Your task to perform on an android device: check google app version Image 0: 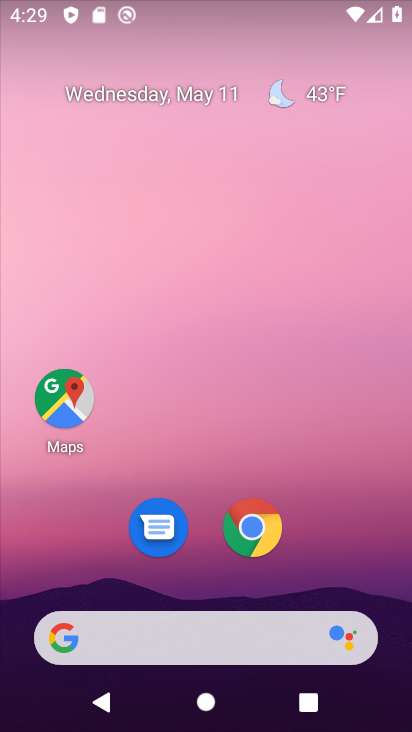
Step 0: drag from (78, 604) to (199, 201)
Your task to perform on an android device: check google app version Image 1: 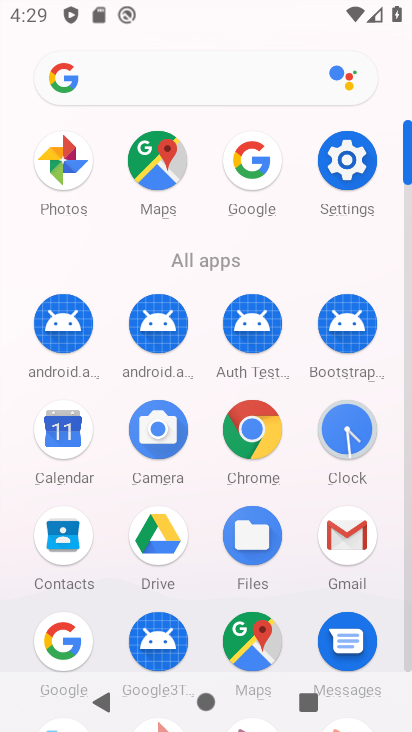
Step 1: drag from (187, 667) to (268, 399)
Your task to perform on an android device: check google app version Image 2: 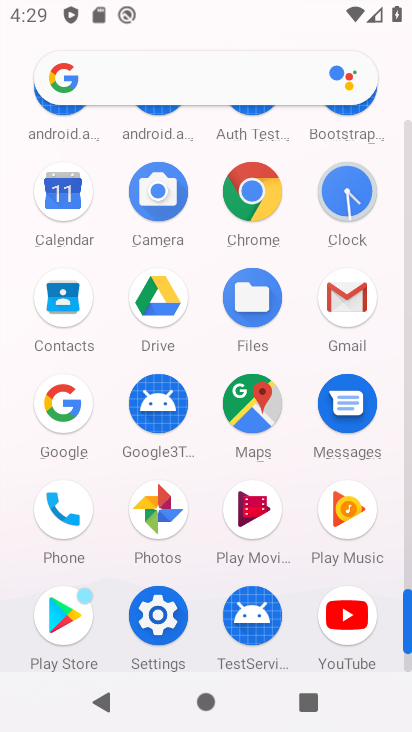
Step 2: click (164, 624)
Your task to perform on an android device: check google app version Image 3: 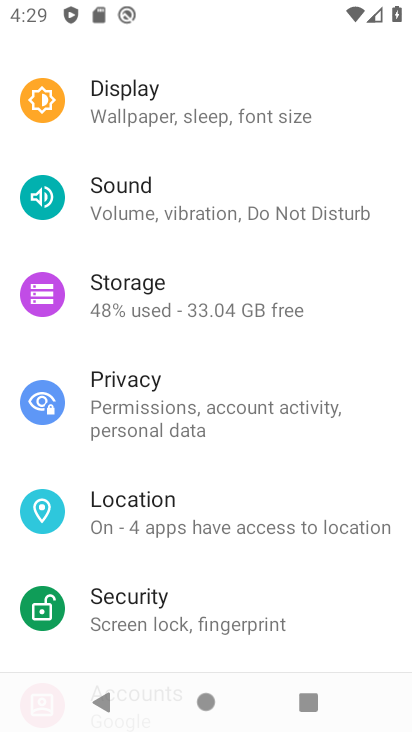
Step 3: drag from (226, 161) to (234, 493)
Your task to perform on an android device: check google app version Image 4: 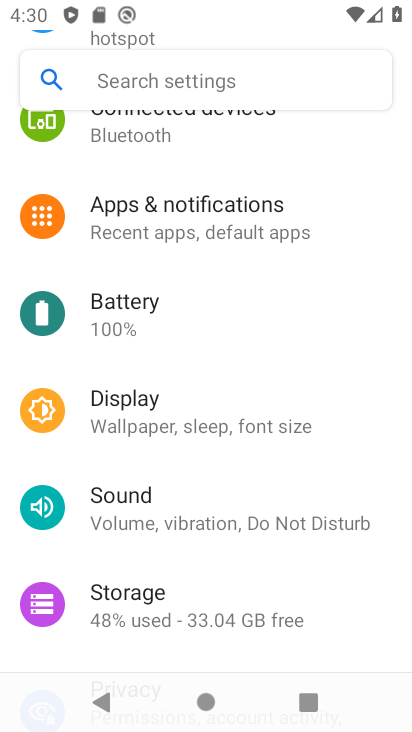
Step 4: click (233, 231)
Your task to perform on an android device: check google app version Image 5: 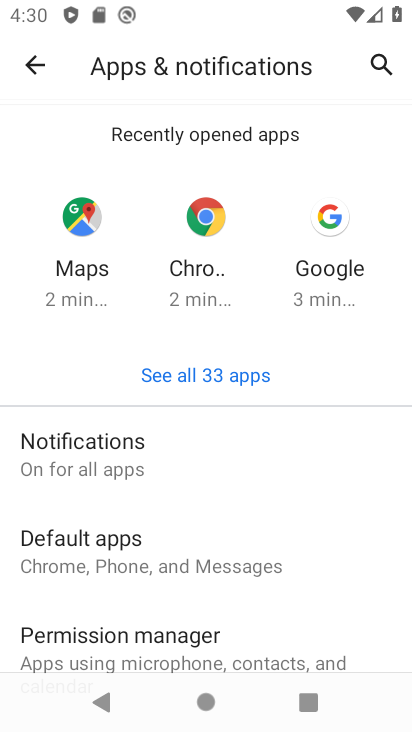
Step 5: click (225, 380)
Your task to perform on an android device: check google app version Image 6: 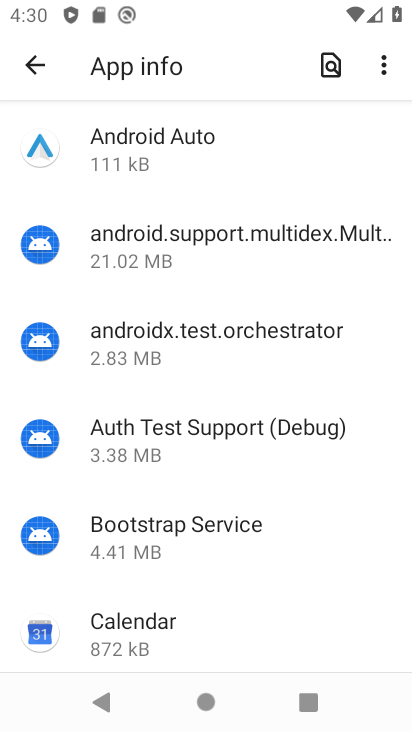
Step 6: drag from (158, 646) to (311, 221)
Your task to perform on an android device: check google app version Image 7: 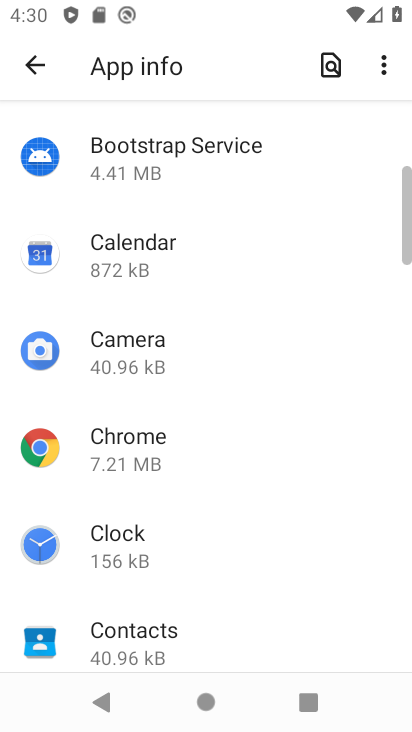
Step 7: drag from (187, 616) to (336, 255)
Your task to perform on an android device: check google app version Image 8: 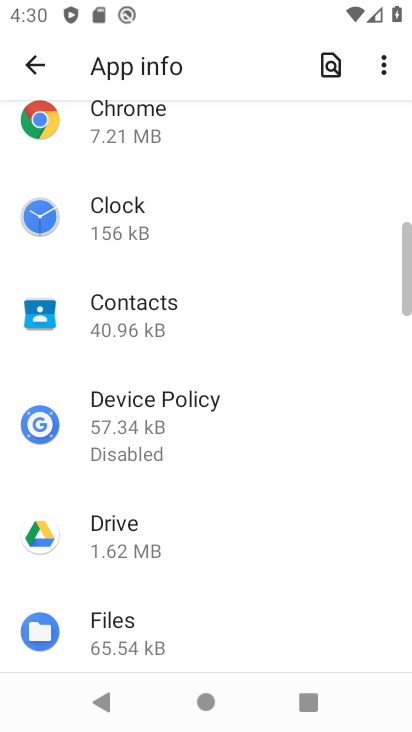
Step 8: drag from (175, 632) to (327, 210)
Your task to perform on an android device: check google app version Image 9: 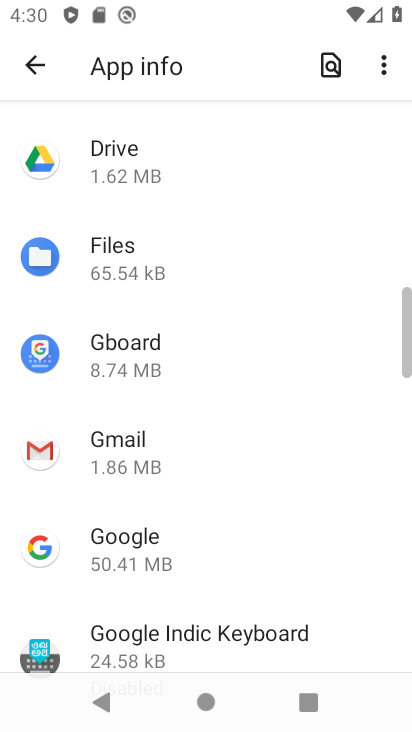
Step 9: click (184, 569)
Your task to perform on an android device: check google app version Image 10: 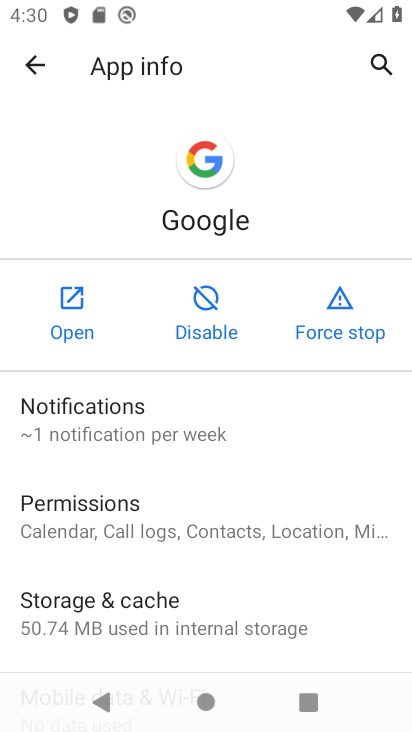
Step 10: drag from (181, 688) to (335, 273)
Your task to perform on an android device: check google app version Image 11: 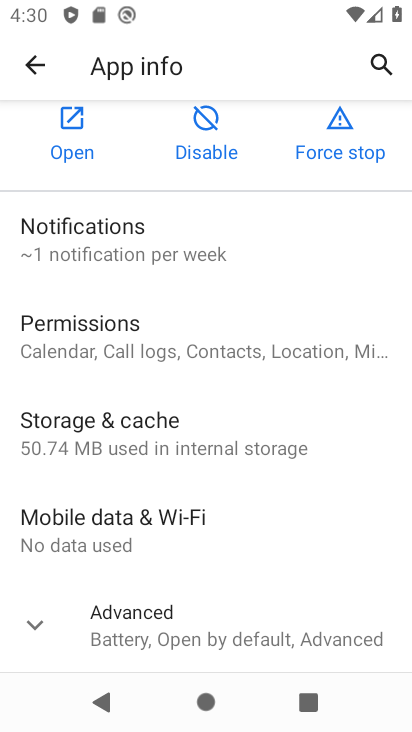
Step 11: click (220, 642)
Your task to perform on an android device: check google app version Image 12: 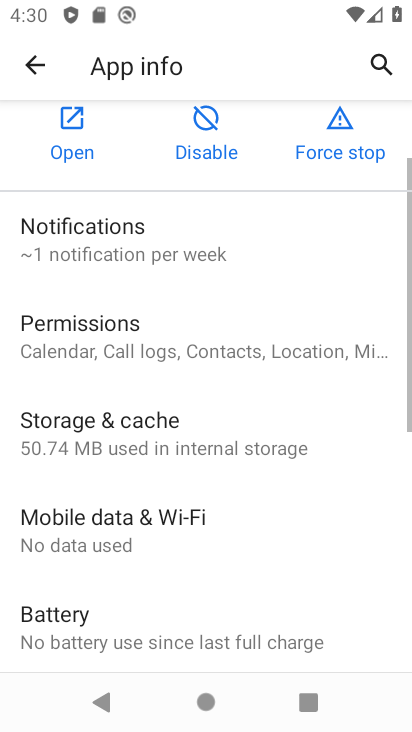
Step 12: task complete